Your task to perform on an android device: Go to settings Image 0: 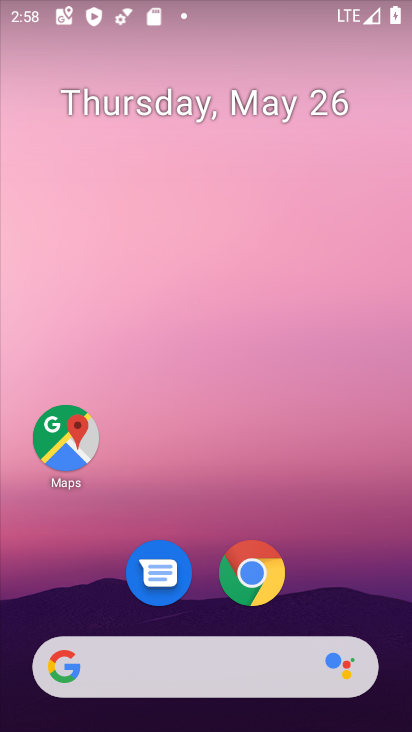
Step 0: drag from (184, 662) to (111, 24)
Your task to perform on an android device: Go to settings Image 1: 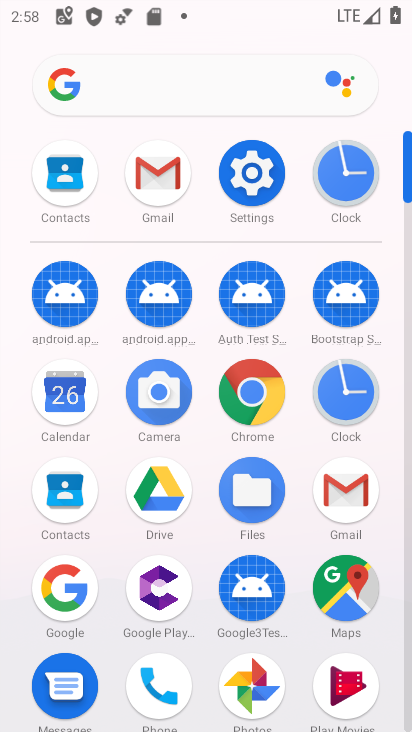
Step 1: click (258, 190)
Your task to perform on an android device: Go to settings Image 2: 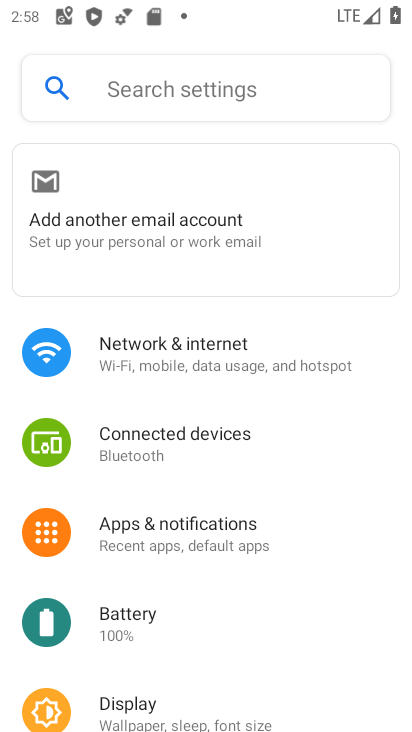
Step 2: task complete